Your task to perform on an android device: check storage Image 0: 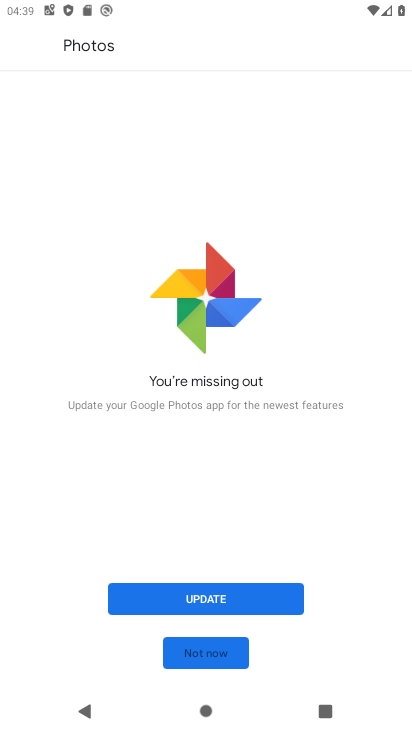
Step 0: press home button
Your task to perform on an android device: check storage Image 1: 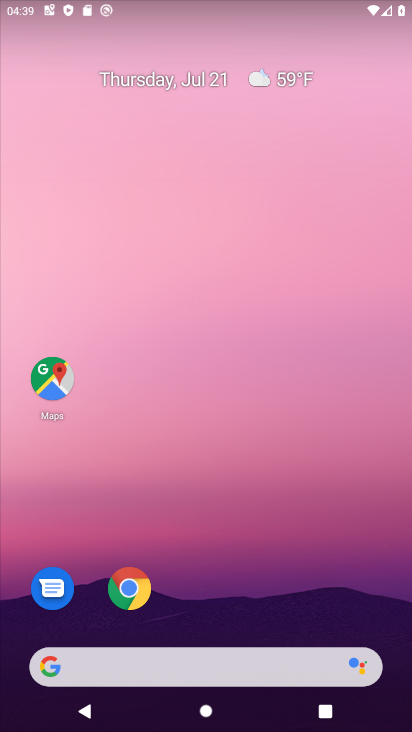
Step 1: drag from (228, 630) to (215, 20)
Your task to perform on an android device: check storage Image 2: 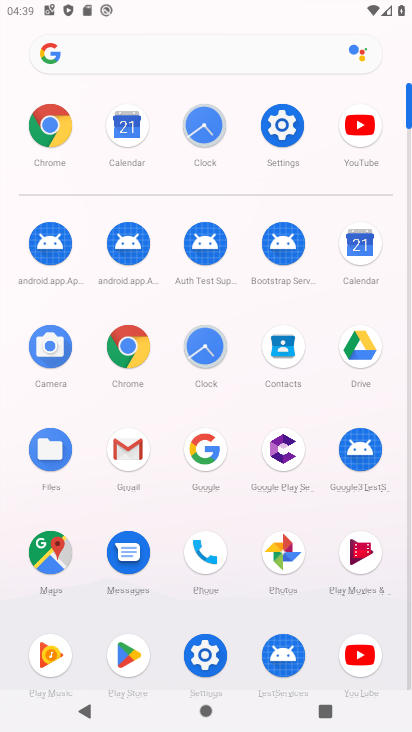
Step 2: click (204, 652)
Your task to perform on an android device: check storage Image 3: 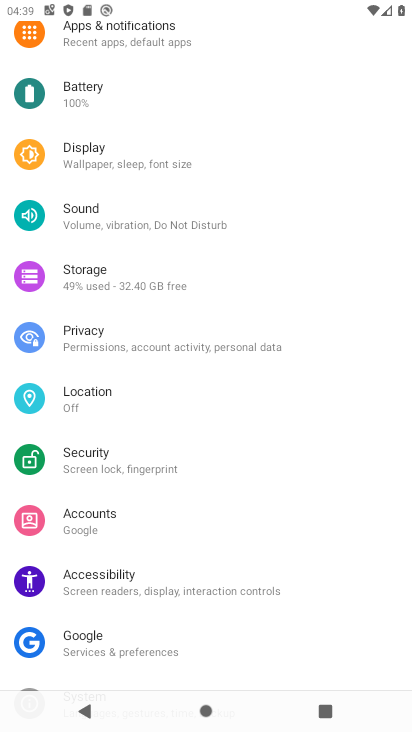
Step 3: click (114, 283)
Your task to perform on an android device: check storage Image 4: 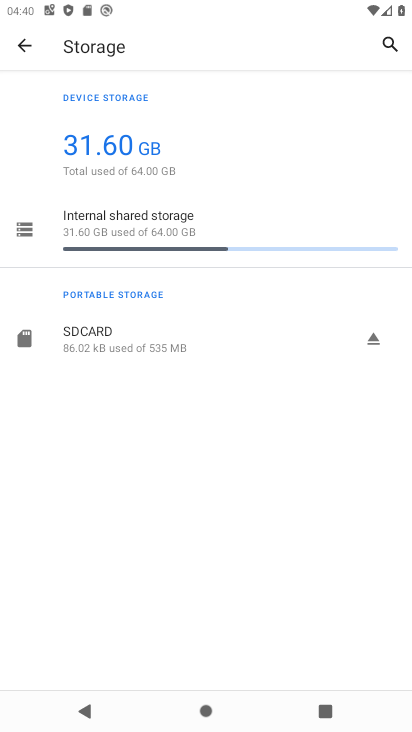
Step 4: click (129, 229)
Your task to perform on an android device: check storage Image 5: 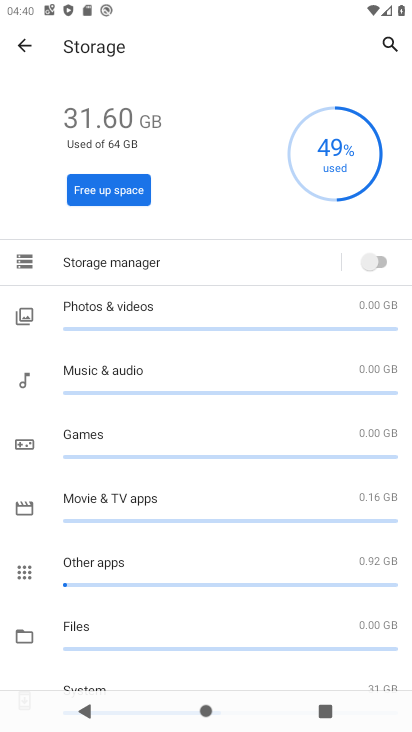
Step 5: task complete